Your task to perform on an android device: turn off translation in the chrome app Image 0: 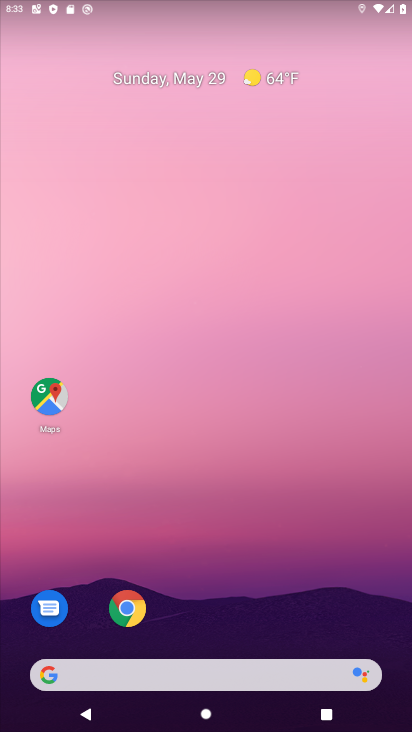
Step 0: click (128, 611)
Your task to perform on an android device: turn off translation in the chrome app Image 1: 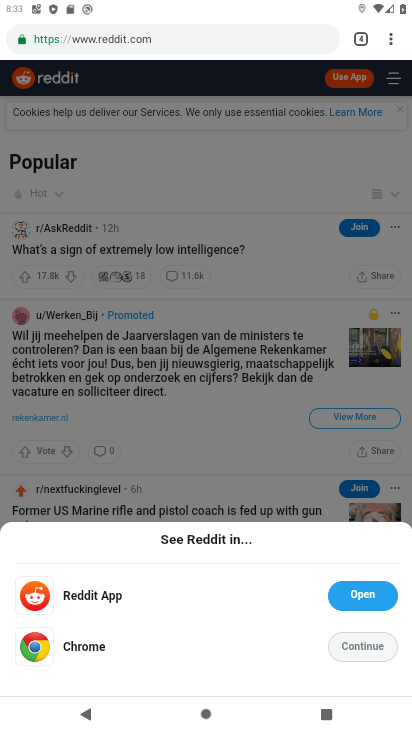
Step 1: click (253, 481)
Your task to perform on an android device: turn off translation in the chrome app Image 2: 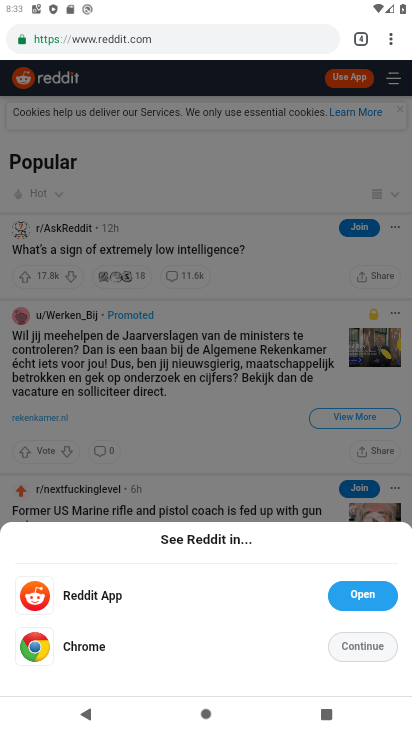
Step 2: press home button
Your task to perform on an android device: turn off translation in the chrome app Image 3: 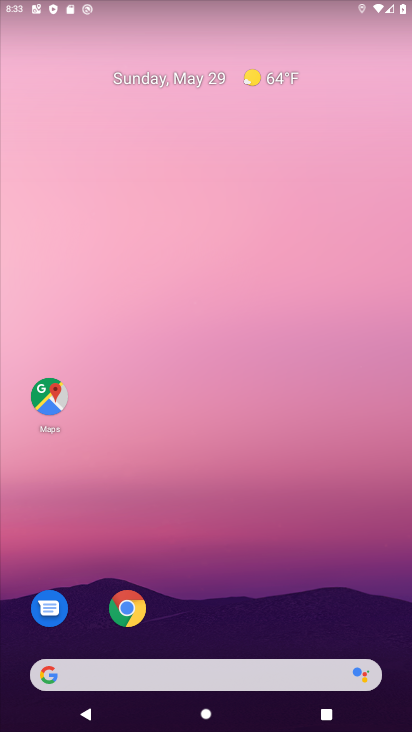
Step 3: click (127, 610)
Your task to perform on an android device: turn off translation in the chrome app Image 4: 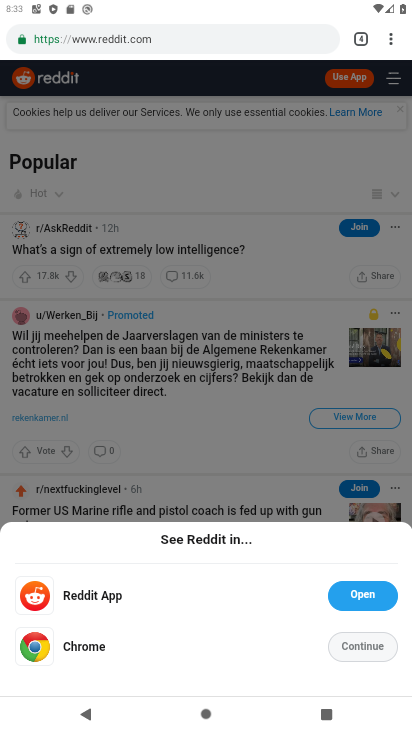
Step 4: click (390, 35)
Your task to perform on an android device: turn off translation in the chrome app Image 5: 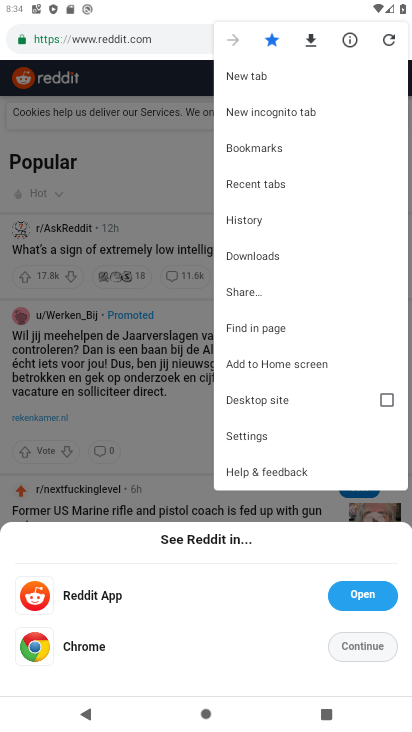
Step 5: click (258, 434)
Your task to perform on an android device: turn off translation in the chrome app Image 6: 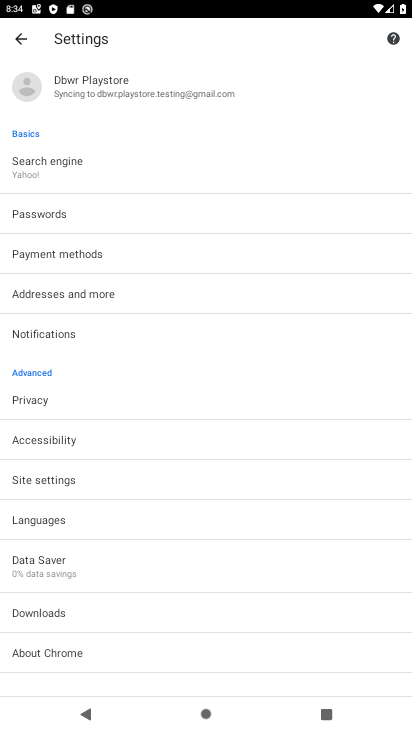
Step 6: click (58, 519)
Your task to perform on an android device: turn off translation in the chrome app Image 7: 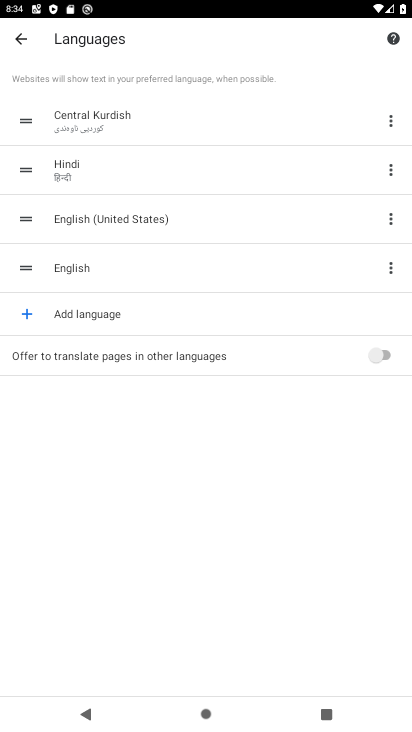
Step 7: task complete